Your task to perform on an android device: What's on my calendar tomorrow? Image 0: 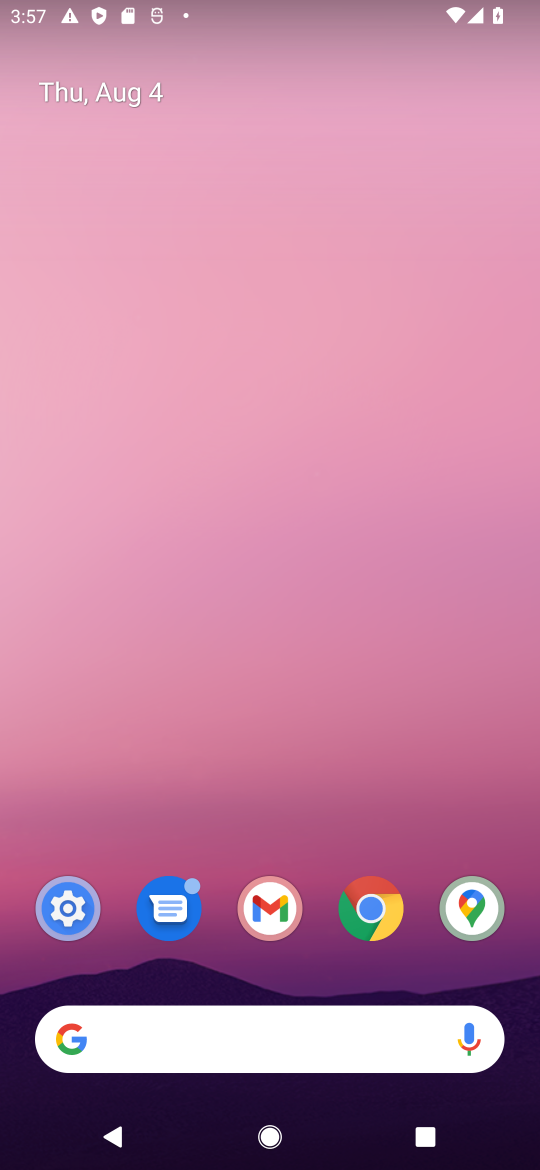
Step 0: drag from (252, 806) to (199, 103)
Your task to perform on an android device: What's on my calendar tomorrow? Image 1: 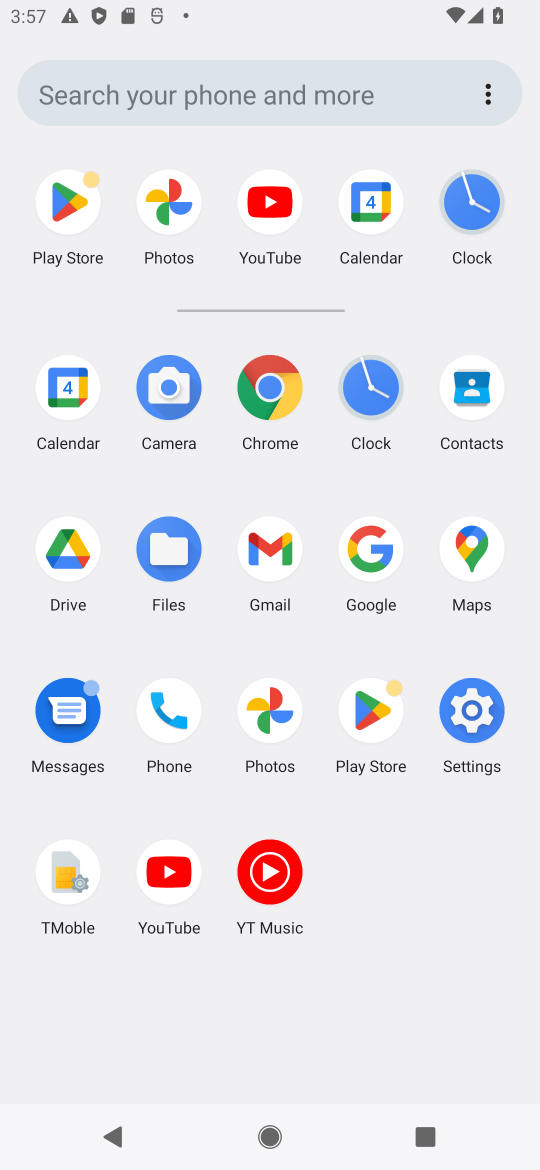
Step 1: click (100, 401)
Your task to perform on an android device: What's on my calendar tomorrow? Image 2: 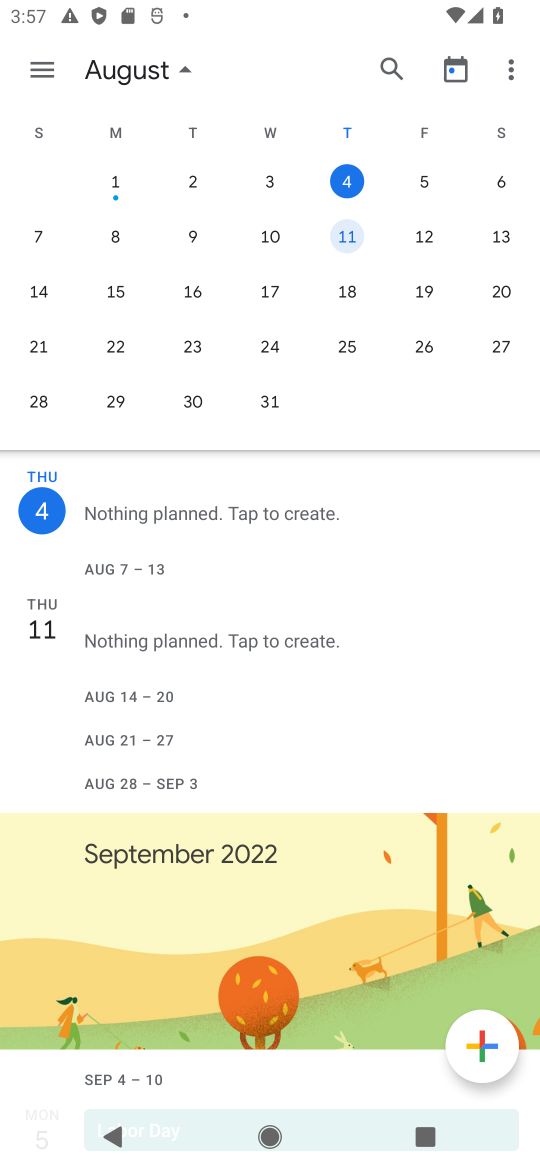
Step 2: click (426, 175)
Your task to perform on an android device: What's on my calendar tomorrow? Image 3: 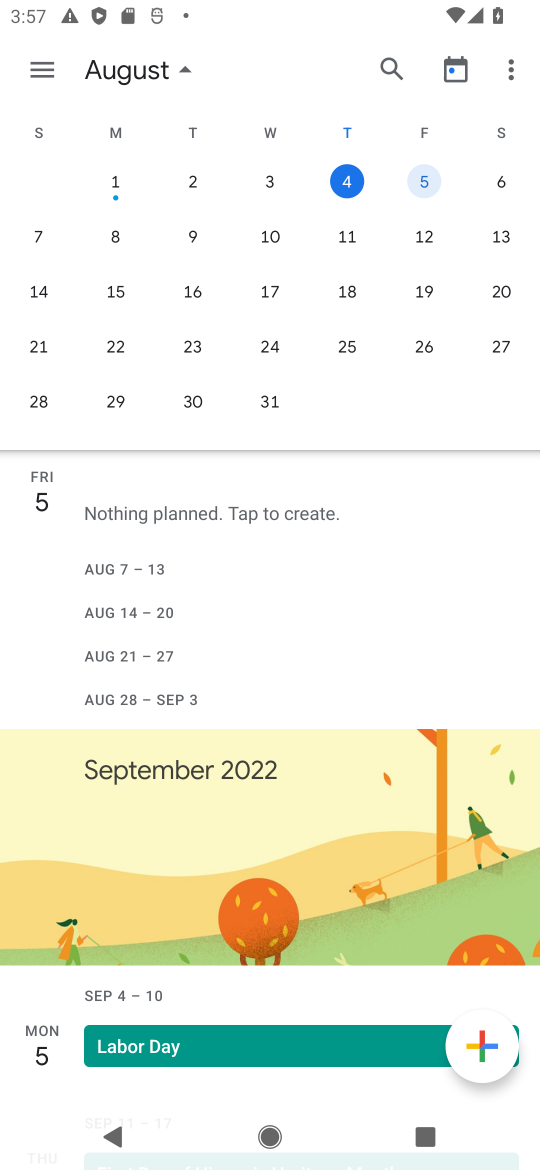
Step 3: task complete